Your task to perform on an android device: toggle pop-ups in chrome Image 0: 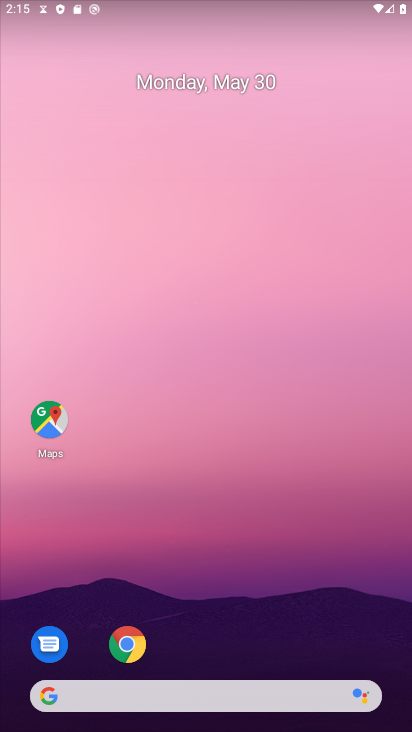
Step 0: click (136, 642)
Your task to perform on an android device: toggle pop-ups in chrome Image 1: 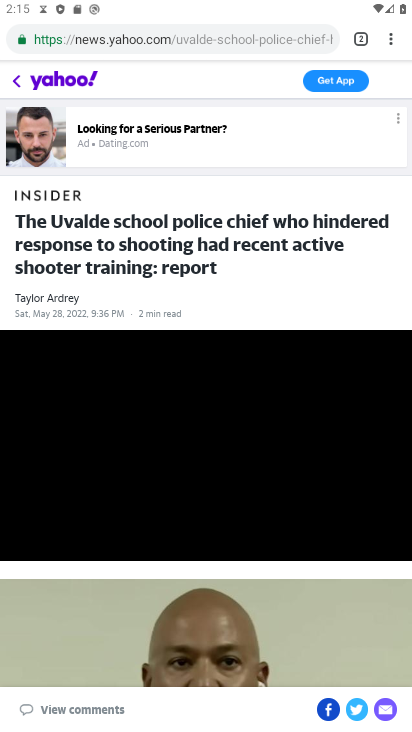
Step 1: drag from (387, 38) to (261, 472)
Your task to perform on an android device: toggle pop-ups in chrome Image 2: 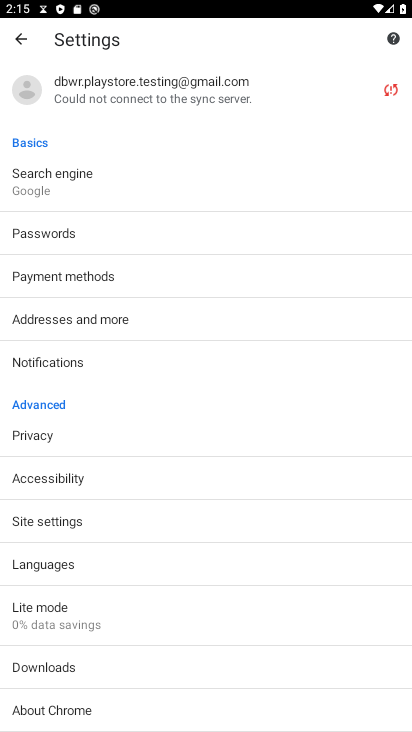
Step 2: click (76, 526)
Your task to perform on an android device: toggle pop-ups in chrome Image 3: 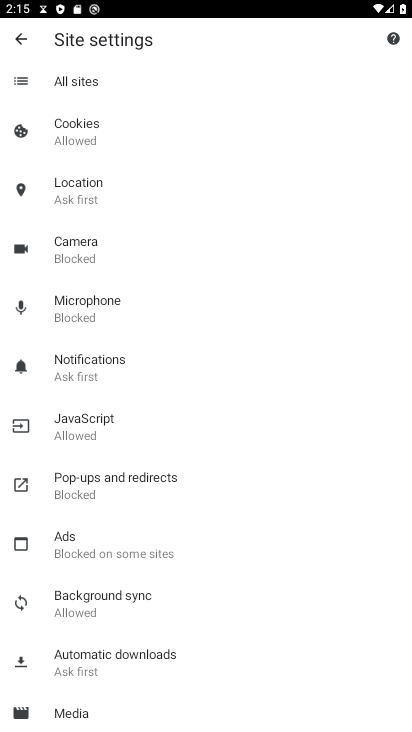
Step 3: click (104, 476)
Your task to perform on an android device: toggle pop-ups in chrome Image 4: 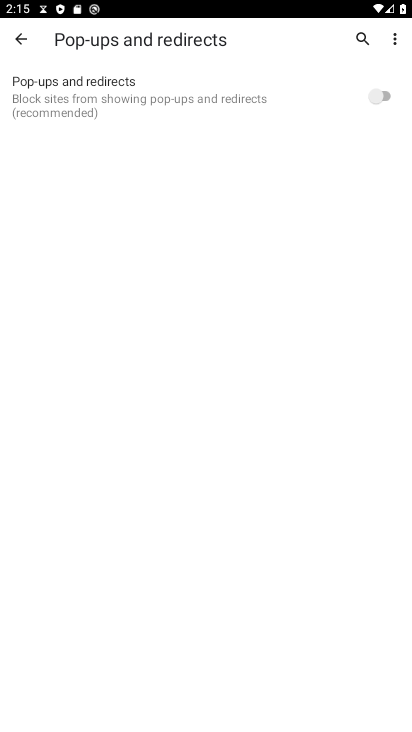
Step 4: click (377, 96)
Your task to perform on an android device: toggle pop-ups in chrome Image 5: 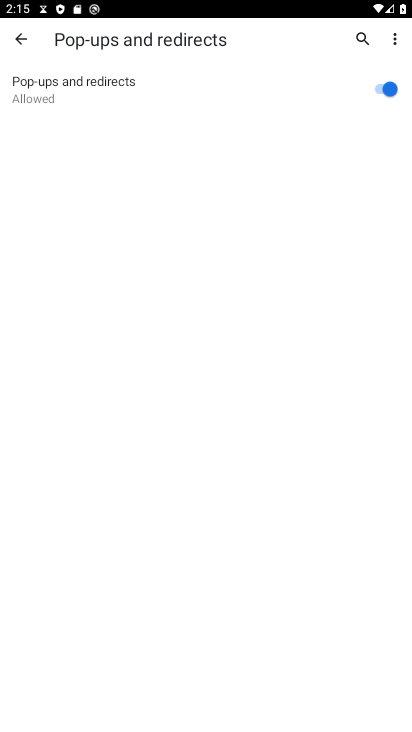
Step 5: task complete